Your task to perform on an android device: What's on my calendar today? Image 0: 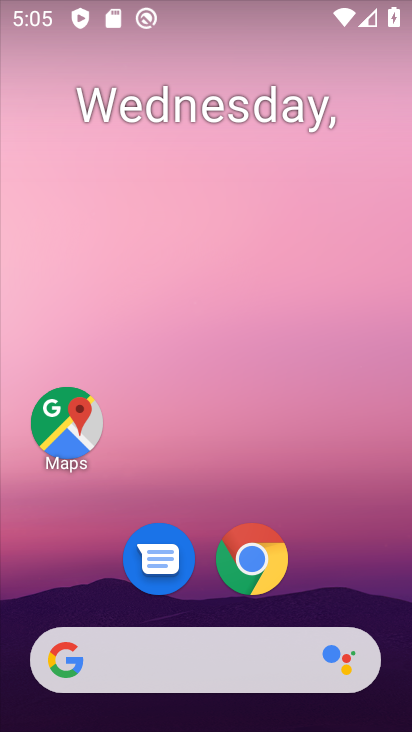
Step 0: drag from (87, 593) to (229, 161)
Your task to perform on an android device: What's on my calendar today? Image 1: 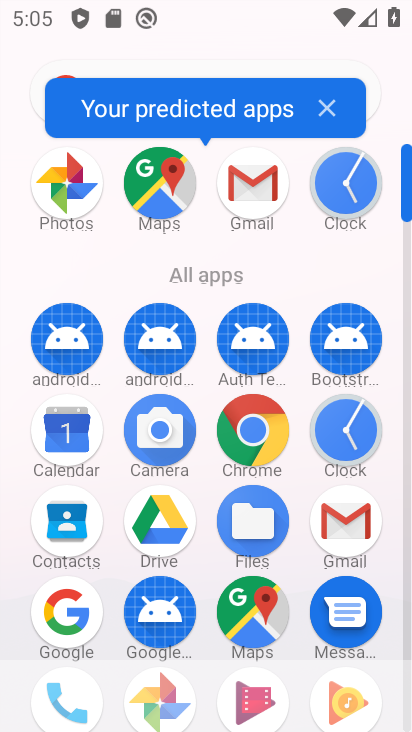
Step 1: click (70, 439)
Your task to perform on an android device: What's on my calendar today? Image 2: 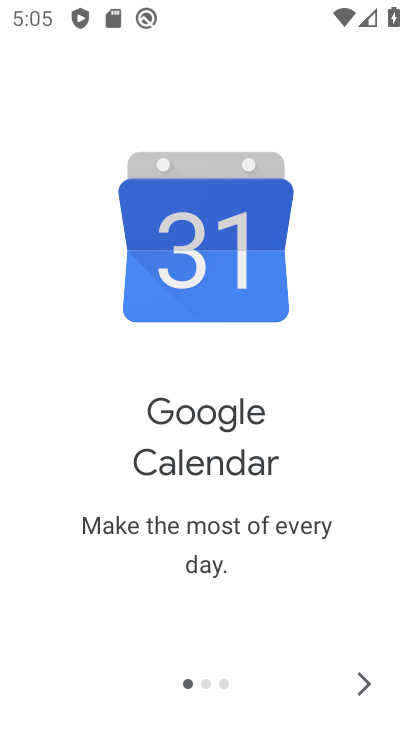
Step 2: click (387, 688)
Your task to perform on an android device: What's on my calendar today? Image 3: 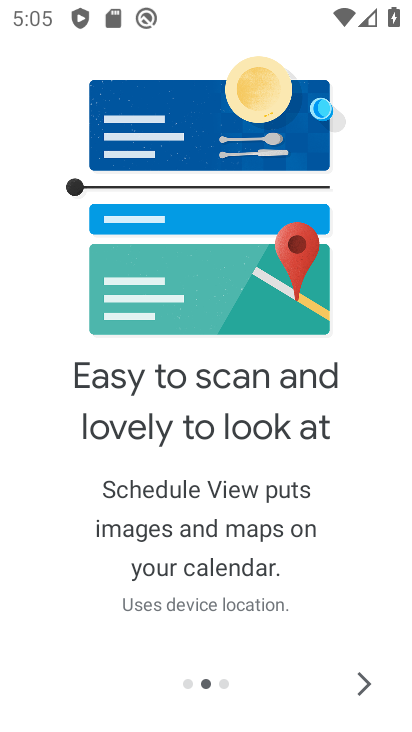
Step 3: click (383, 685)
Your task to perform on an android device: What's on my calendar today? Image 4: 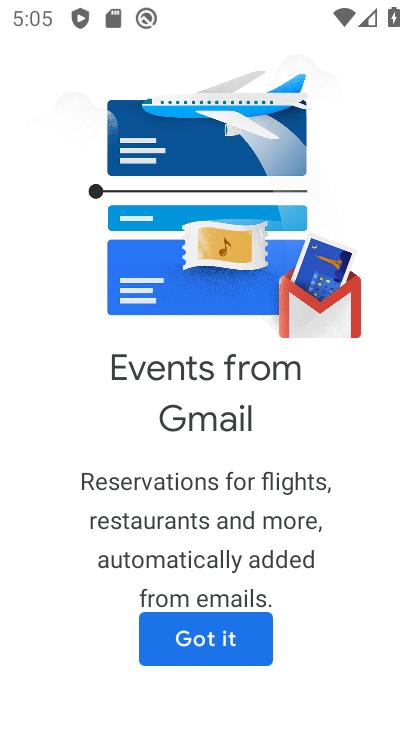
Step 4: click (236, 636)
Your task to perform on an android device: What's on my calendar today? Image 5: 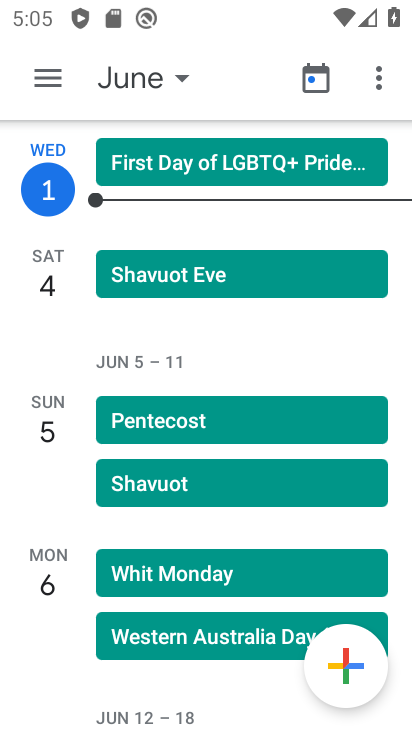
Step 5: task complete